Your task to perform on an android device: Open maps Image 0: 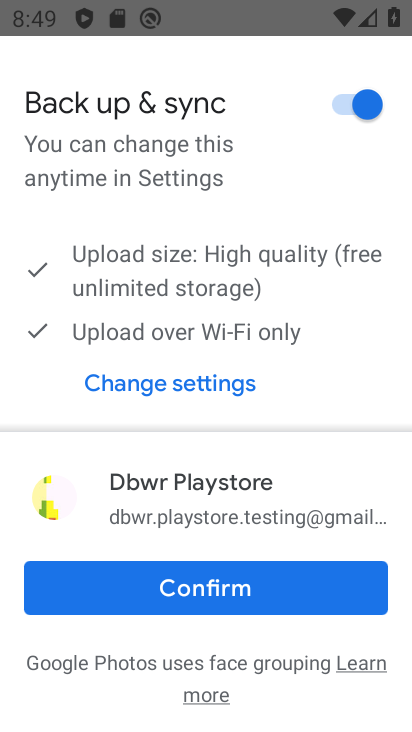
Step 0: press home button
Your task to perform on an android device: Open maps Image 1: 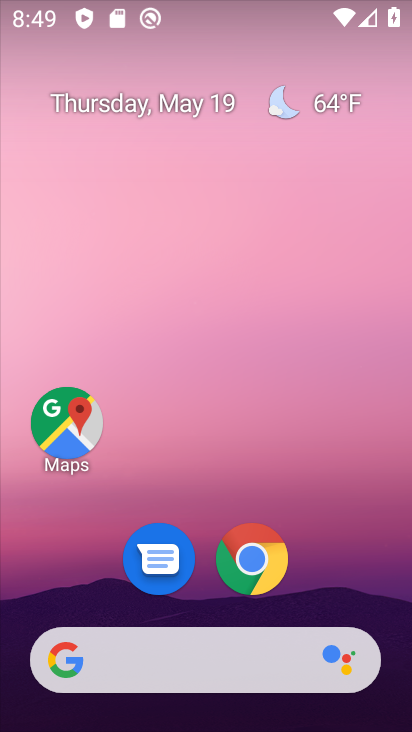
Step 1: drag from (211, 686) to (256, 201)
Your task to perform on an android device: Open maps Image 2: 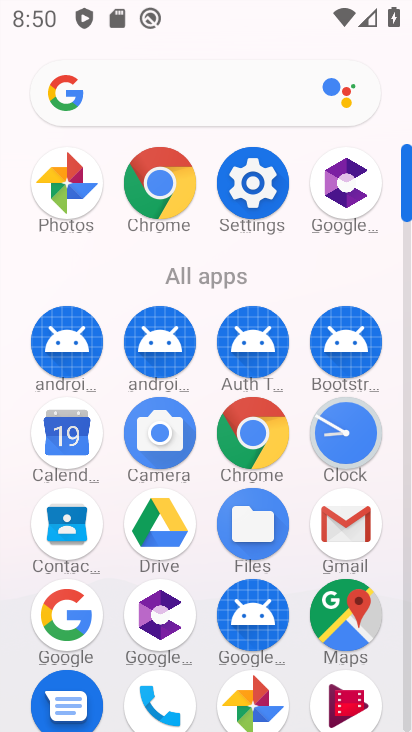
Step 2: click (362, 607)
Your task to perform on an android device: Open maps Image 3: 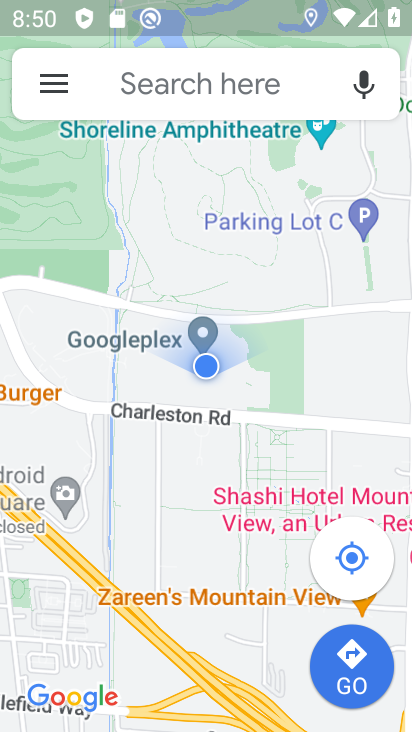
Step 3: task complete